Your task to perform on an android device: turn on the 24-hour format for clock Image 0: 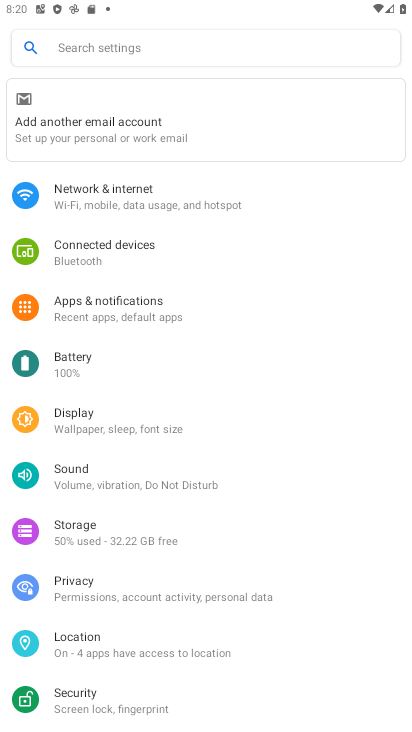
Step 0: press home button
Your task to perform on an android device: turn on the 24-hour format for clock Image 1: 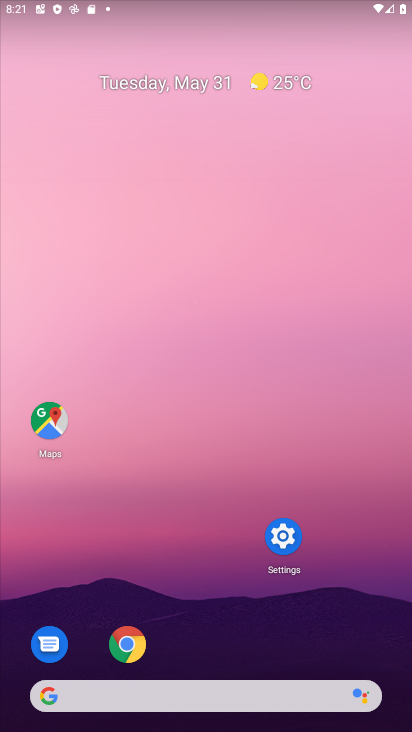
Step 1: drag from (231, 722) to (277, 210)
Your task to perform on an android device: turn on the 24-hour format for clock Image 2: 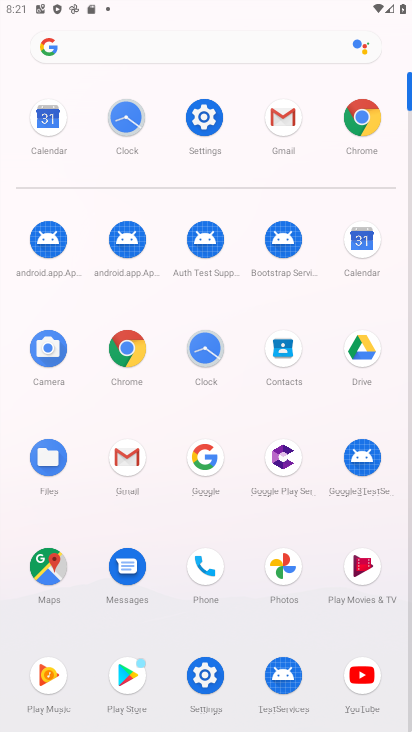
Step 2: click (212, 347)
Your task to perform on an android device: turn on the 24-hour format for clock Image 3: 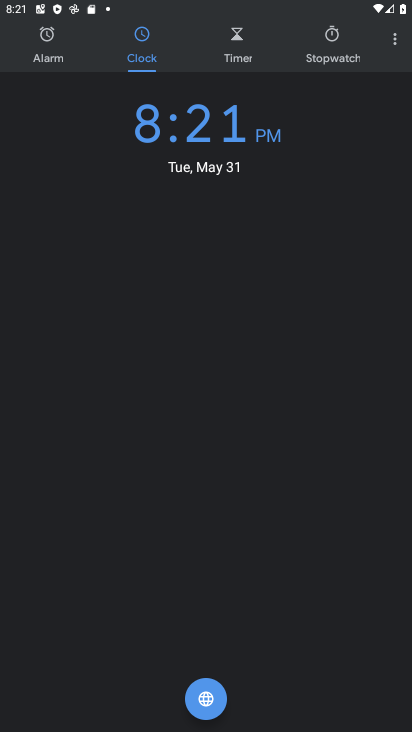
Step 3: click (386, 43)
Your task to perform on an android device: turn on the 24-hour format for clock Image 4: 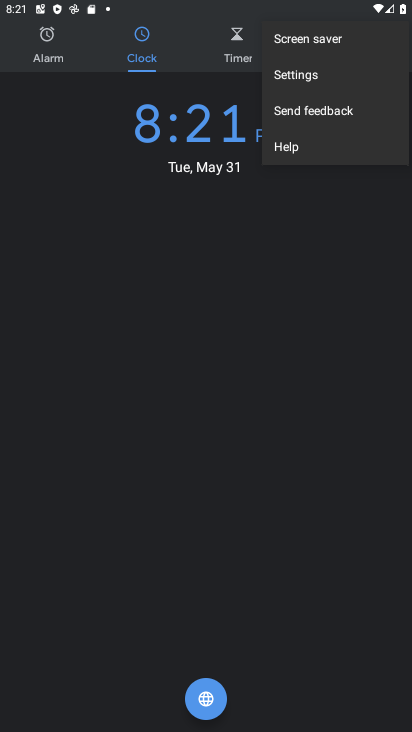
Step 4: click (314, 81)
Your task to perform on an android device: turn on the 24-hour format for clock Image 5: 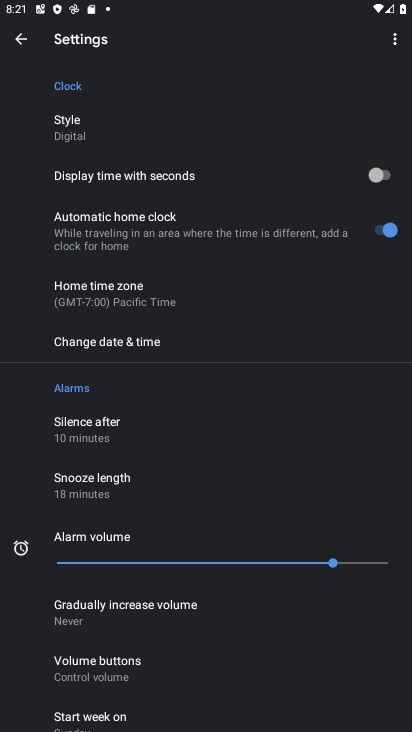
Step 5: click (146, 345)
Your task to perform on an android device: turn on the 24-hour format for clock Image 6: 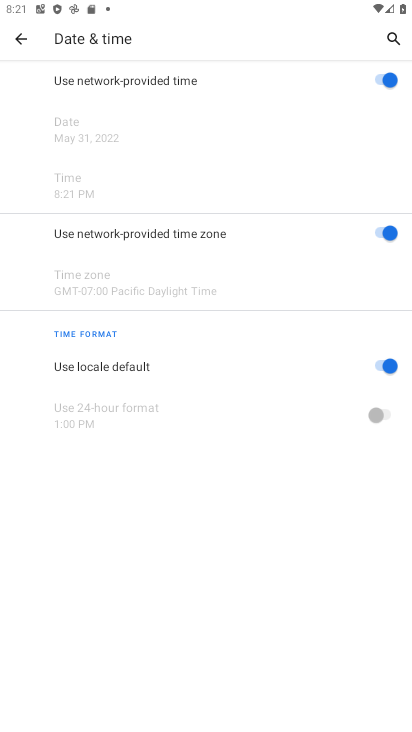
Step 6: click (380, 361)
Your task to perform on an android device: turn on the 24-hour format for clock Image 7: 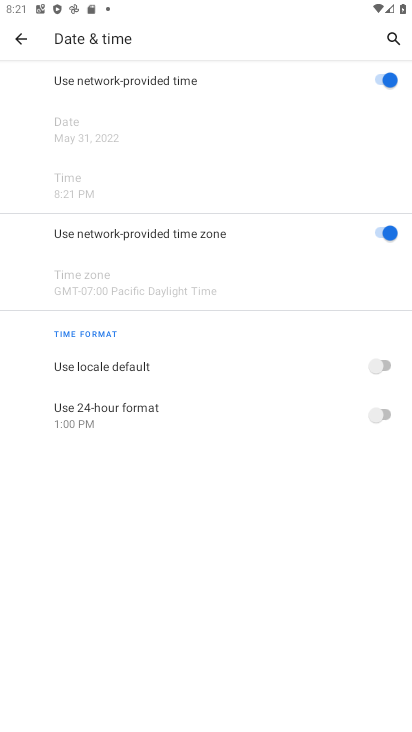
Step 7: click (388, 408)
Your task to perform on an android device: turn on the 24-hour format for clock Image 8: 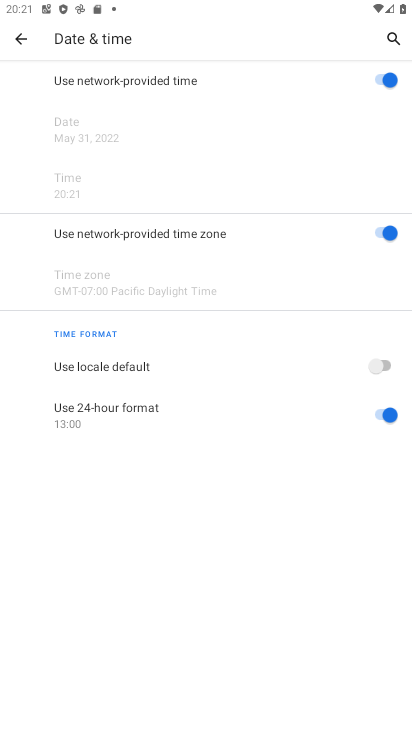
Step 8: task complete